Your task to perform on an android device: change timer sound Image 0: 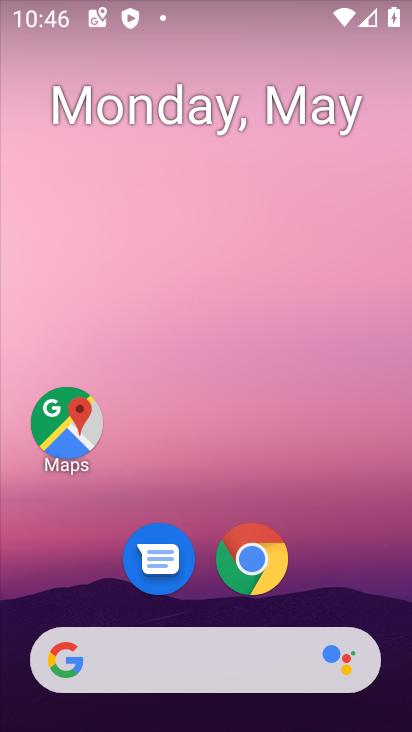
Step 0: drag from (346, 568) to (345, 155)
Your task to perform on an android device: change timer sound Image 1: 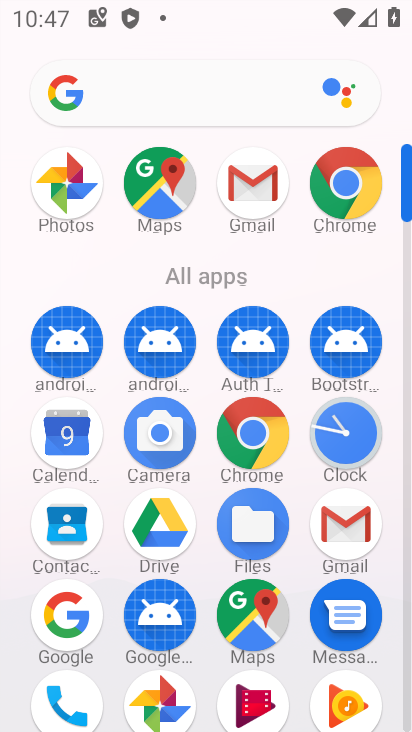
Step 1: click (351, 447)
Your task to perform on an android device: change timer sound Image 2: 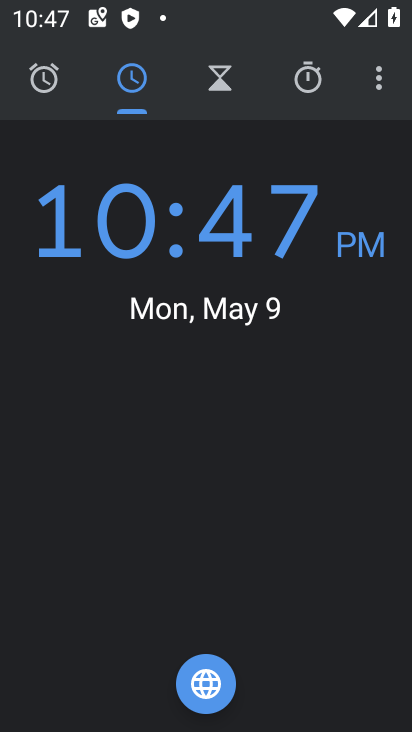
Step 2: click (214, 89)
Your task to perform on an android device: change timer sound Image 3: 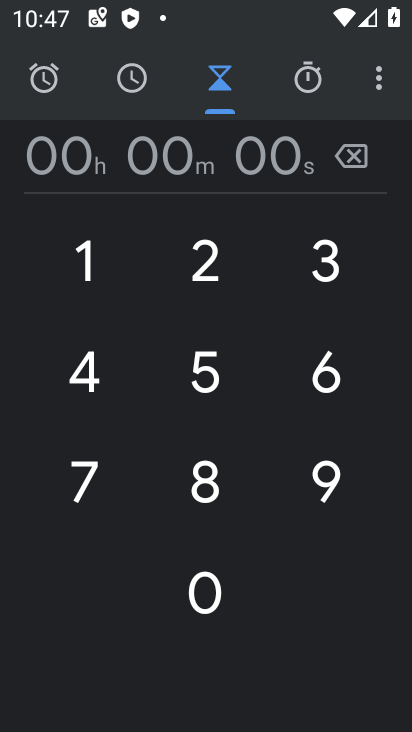
Step 3: click (223, 242)
Your task to perform on an android device: change timer sound Image 4: 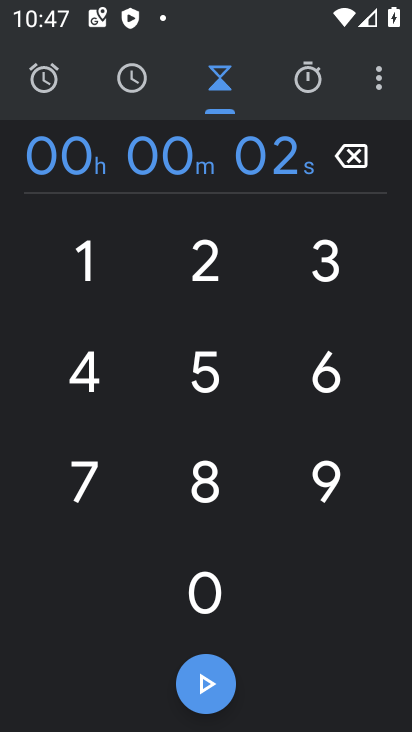
Step 4: task complete